Your task to perform on an android device: turn smart compose on in the gmail app Image 0: 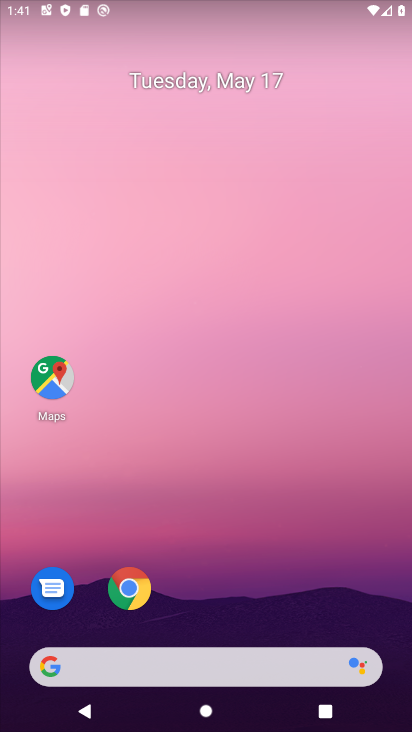
Step 0: drag from (230, 617) to (110, 85)
Your task to perform on an android device: turn smart compose on in the gmail app Image 1: 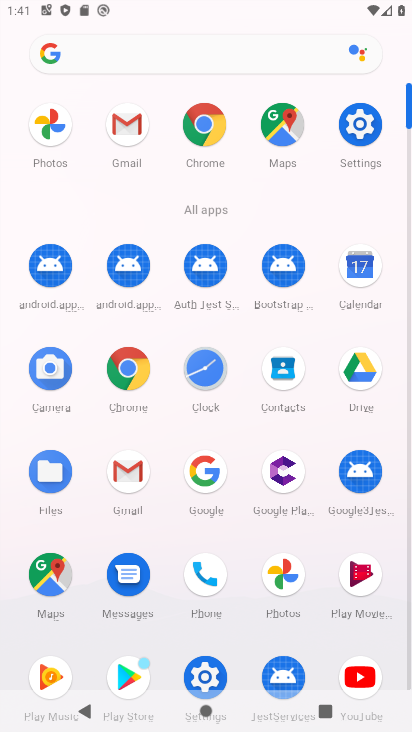
Step 1: click (129, 142)
Your task to perform on an android device: turn smart compose on in the gmail app Image 2: 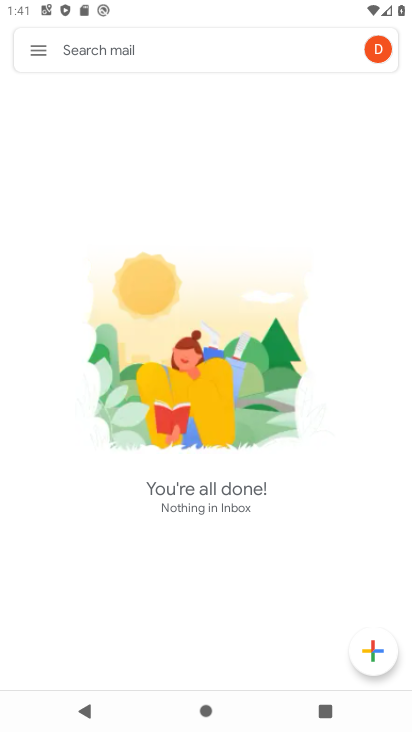
Step 2: click (47, 46)
Your task to perform on an android device: turn smart compose on in the gmail app Image 3: 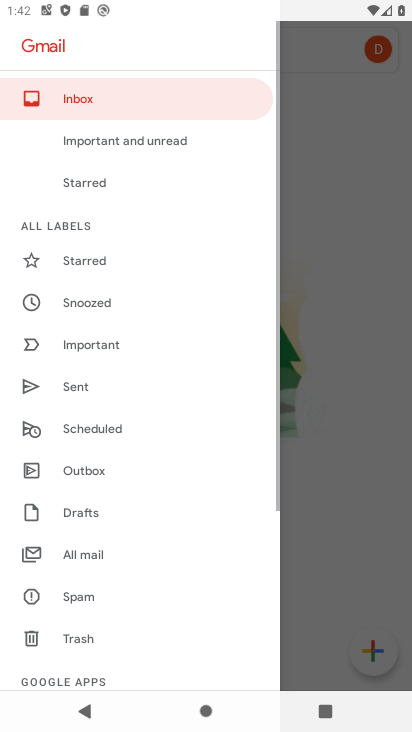
Step 3: drag from (75, 607) to (96, 244)
Your task to perform on an android device: turn smart compose on in the gmail app Image 4: 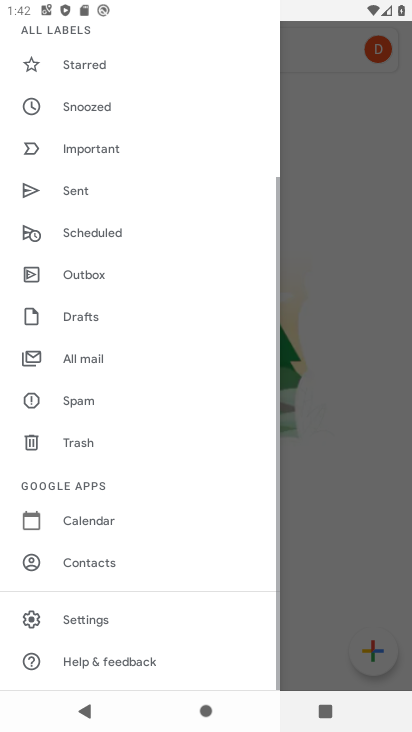
Step 4: click (64, 621)
Your task to perform on an android device: turn smart compose on in the gmail app Image 5: 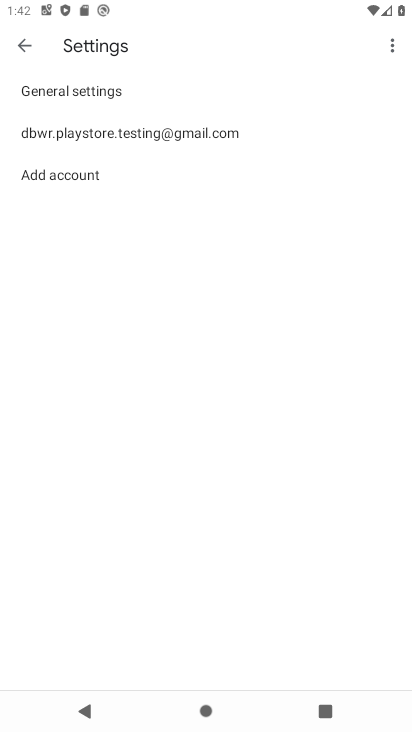
Step 5: click (161, 136)
Your task to perform on an android device: turn smart compose on in the gmail app Image 6: 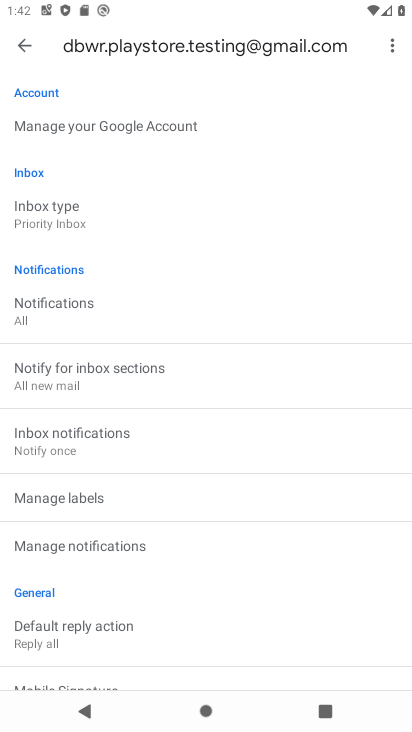
Step 6: task complete